Your task to perform on an android device: Open Chrome and go to settings Image 0: 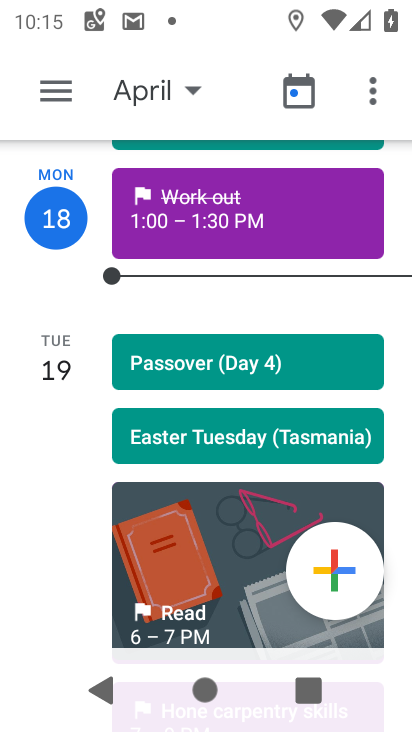
Step 0: press home button
Your task to perform on an android device: Open Chrome and go to settings Image 1: 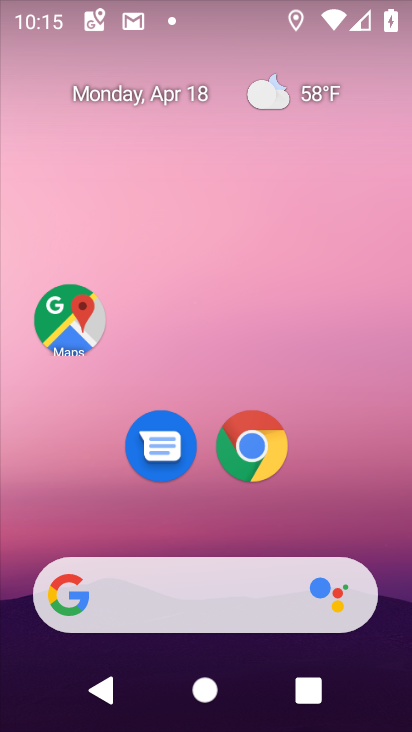
Step 1: drag from (351, 497) to (359, 133)
Your task to perform on an android device: Open Chrome and go to settings Image 2: 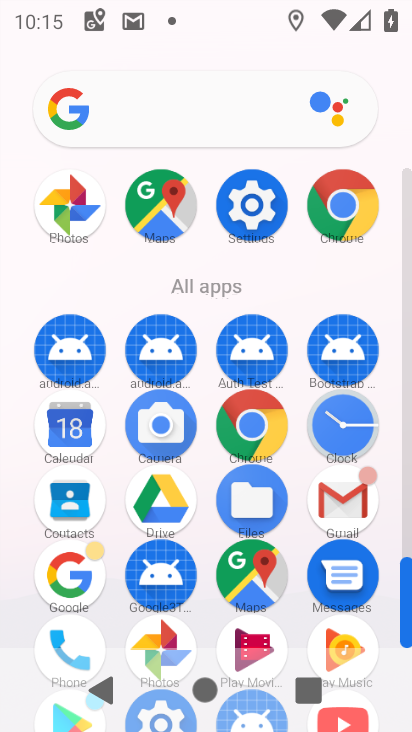
Step 2: click (252, 428)
Your task to perform on an android device: Open Chrome and go to settings Image 3: 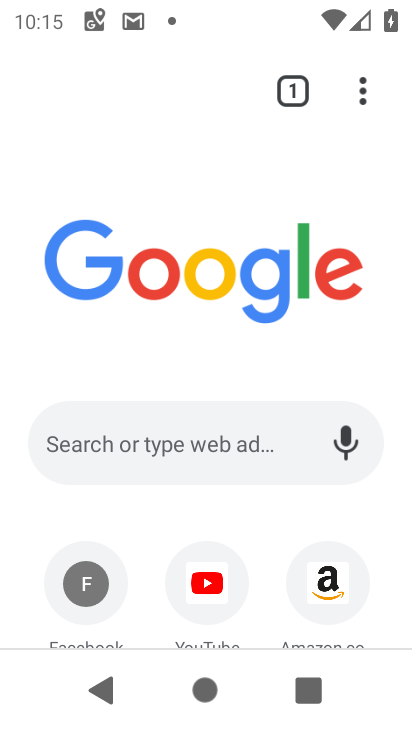
Step 3: click (364, 94)
Your task to perform on an android device: Open Chrome and go to settings Image 4: 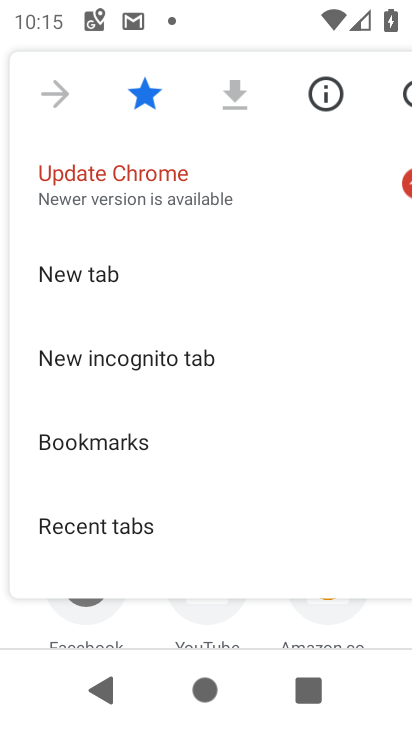
Step 4: drag from (291, 506) to (294, 278)
Your task to perform on an android device: Open Chrome and go to settings Image 5: 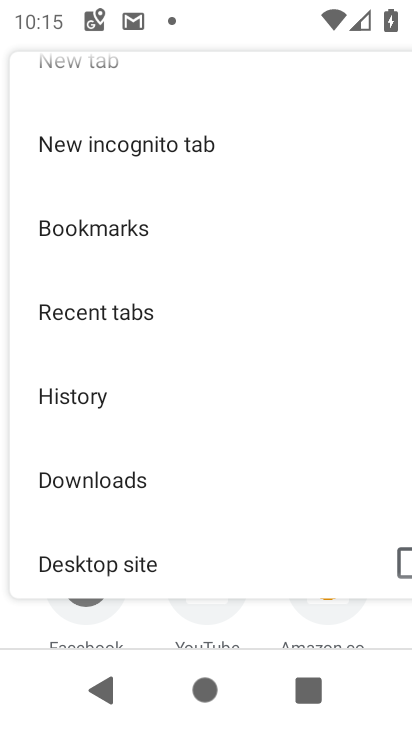
Step 5: drag from (280, 499) to (281, 252)
Your task to perform on an android device: Open Chrome and go to settings Image 6: 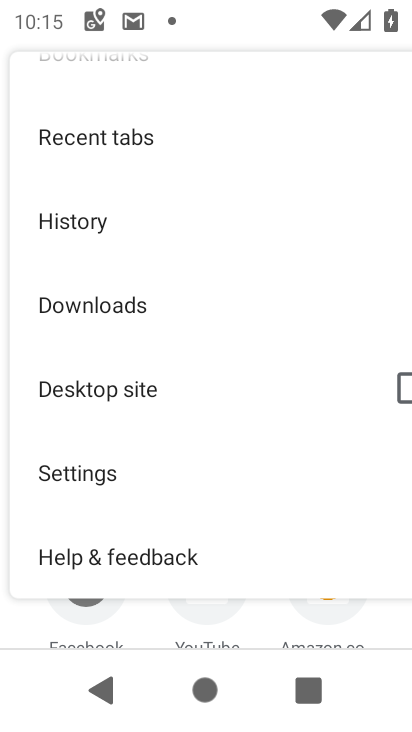
Step 6: click (93, 474)
Your task to perform on an android device: Open Chrome and go to settings Image 7: 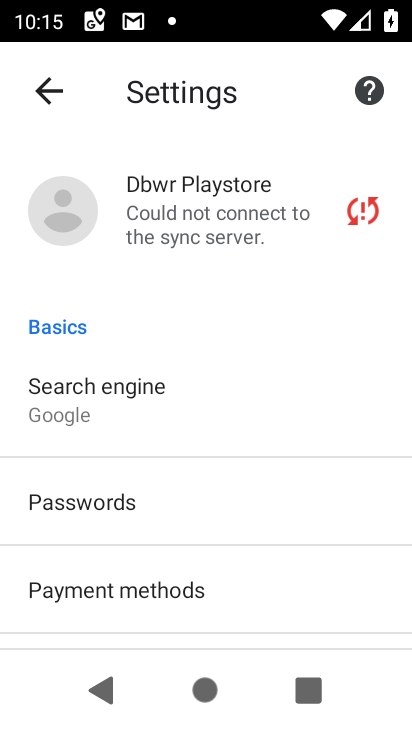
Step 7: task complete